Your task to perform on an android device: change your default location settings in chrome Image 0: 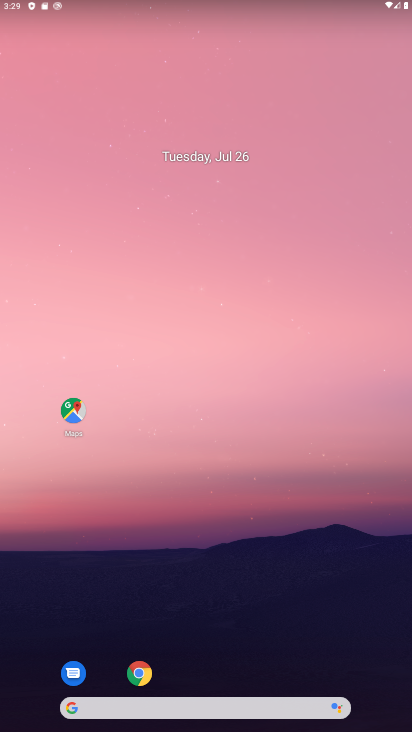
Step 0: click (143, 670)
Your task to perform on an android device: change your default location settings in chrome Image 1: 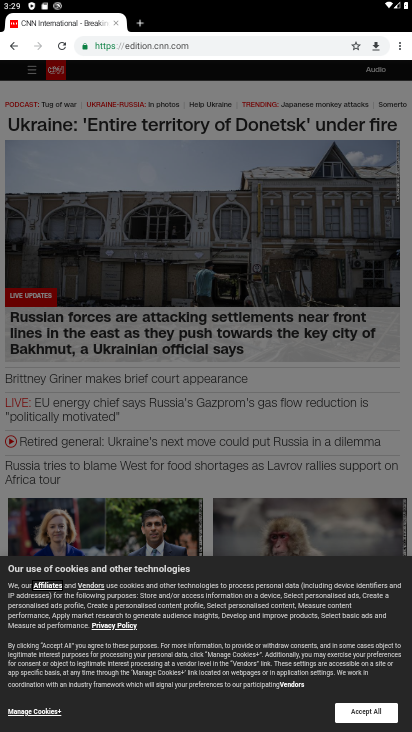
Step 1: drag from (401, 43) to (332, 279)
Your task to perform on an android device: change your default location settings in chrome Image 2: 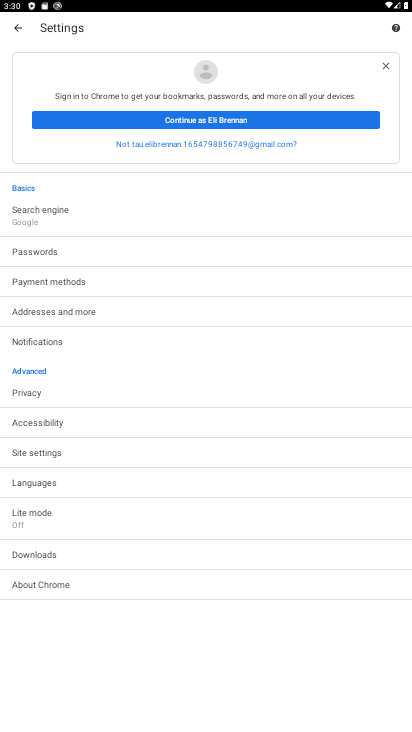
Step 2: click (42, 456)
Your task to perform on an android device: change your default location settings in chrome Image 3: 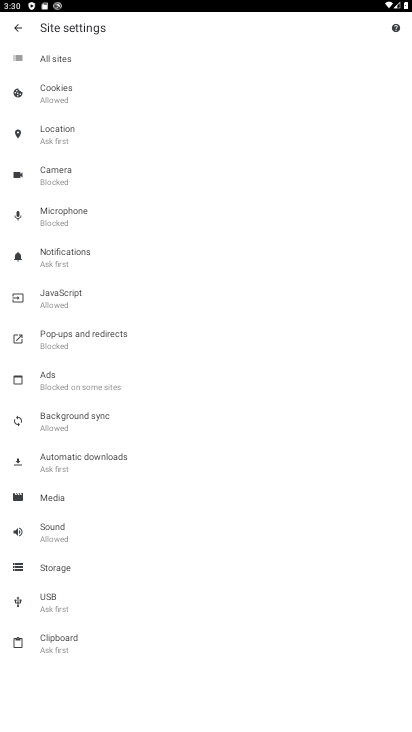
Step 3: click (53, 146)
Your task to perform on an android device: change your default location settings in chrome Image 4: 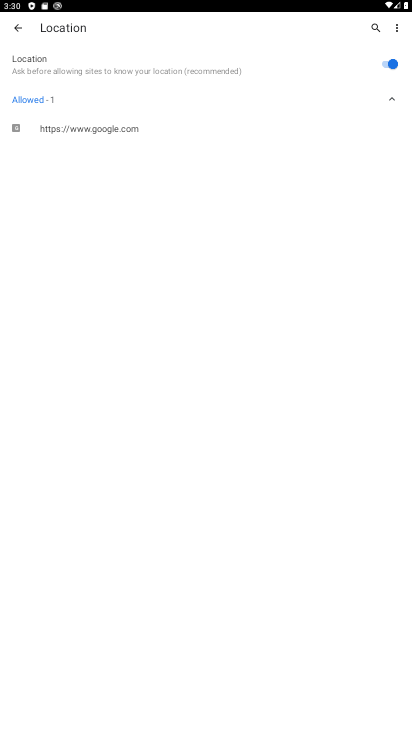
Step 4: click (394, 64)
Your task to perform on an android device: change your default location settings in chrome Image 5: 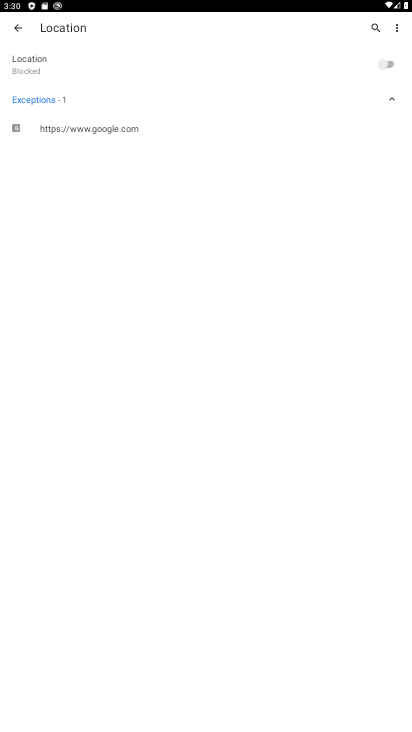
Step 5: task complete